Your task to perform on an android device: change the upload size in google photos Image 0: 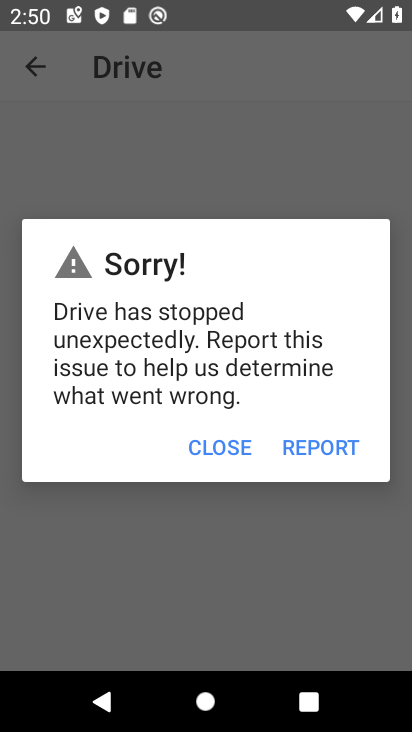
Step 0: press home button
Your task to perform on an android device: change the upload size in google photos Image 1: 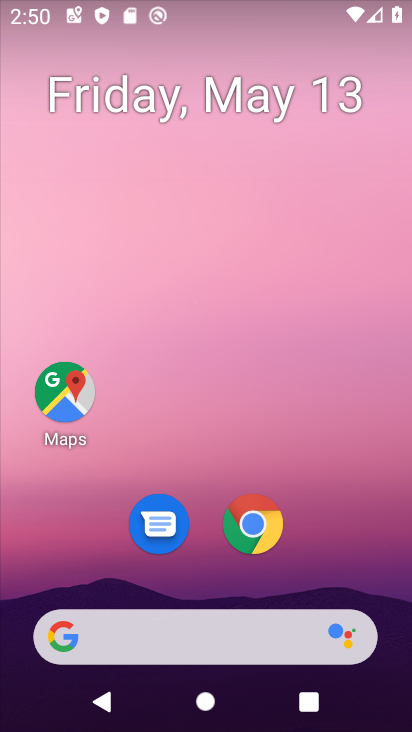
Step 1: drag from (271, 484) to (310, 65)
Your task to perform on an android device: change the upload size in google photos Image 2: 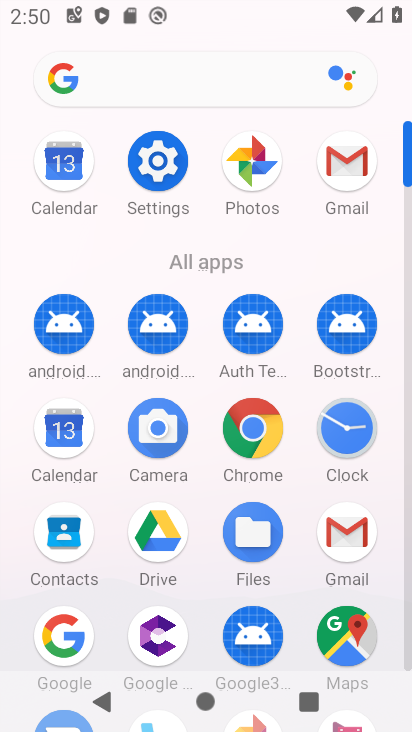
Step 2: click (249, 175)
Your task to perform on an android device: change the upload size in google photos Image 3: 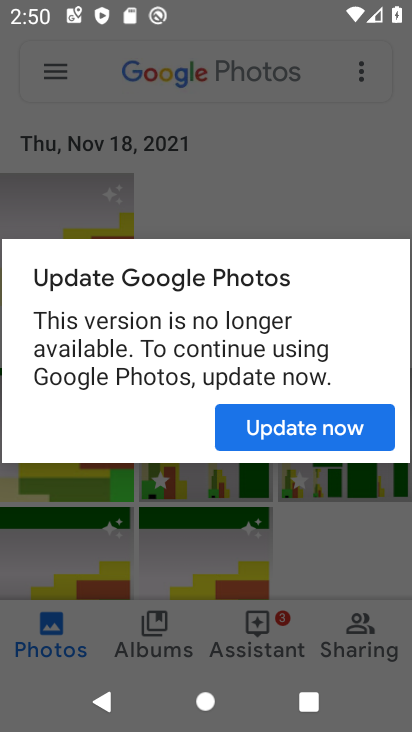
Step 3: click (316, 427)
Your task to perform on an android device: change the upload size in google photos Image 4: 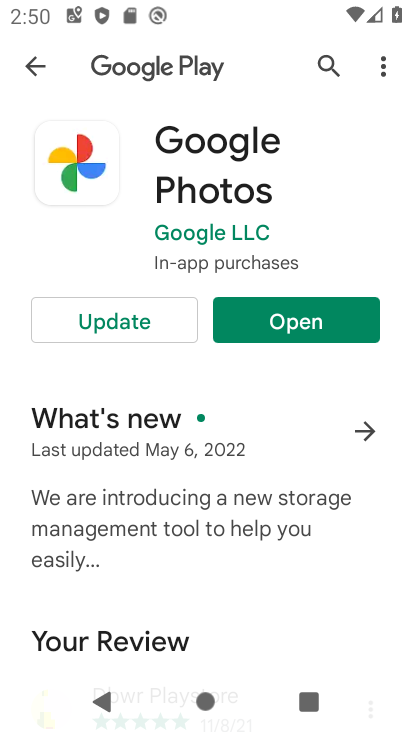
Step 4: click (326, 329)
Your task to perform on an android device: change the upload size in google photos Image 5: 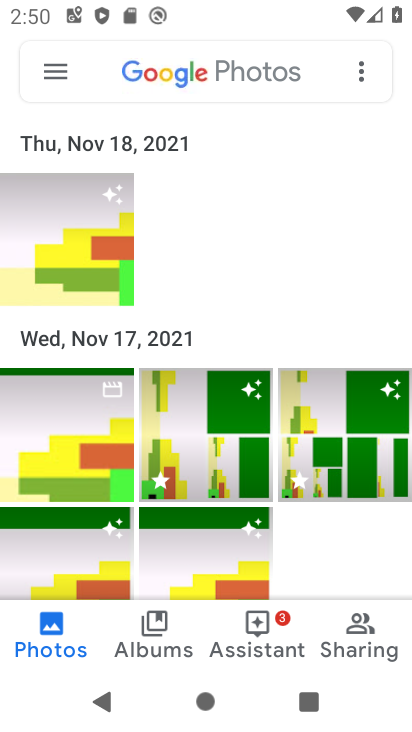
Step 5: click (57, 71)
Your task to perform on an android device: change the upload size in google photos Image 6: 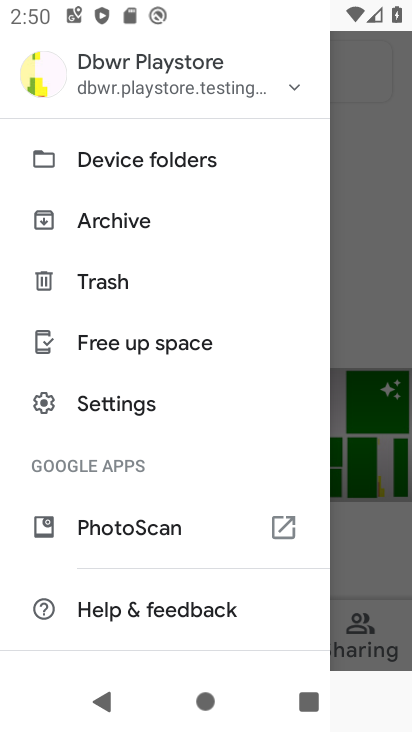
Step 6: click (122, 394)
Your task to perform on an android device: change the upload size in google photos Image 7: 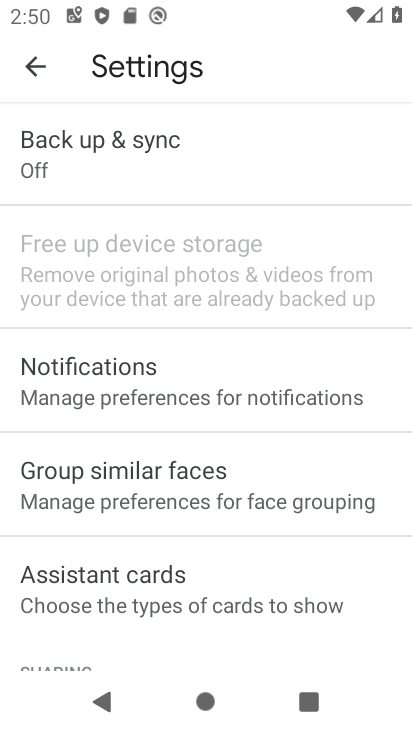
Step 7: click (164, 154)
Your task to perform on an android device: change the upload size in google photos Image 8: 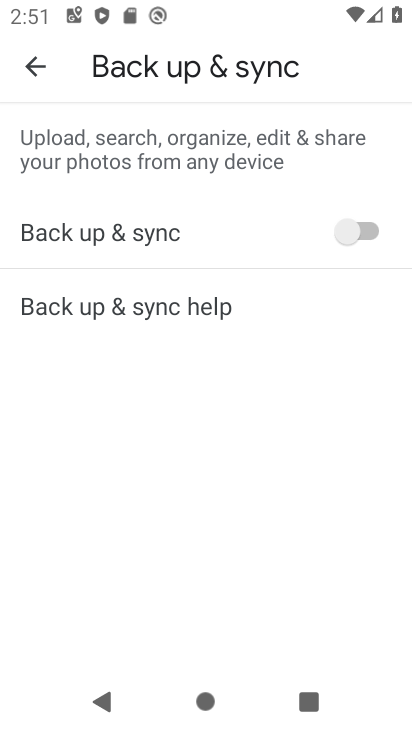
Step 8: click (357, 224)
Your task to perform on an android device: change the upload size in google photos Image 9: 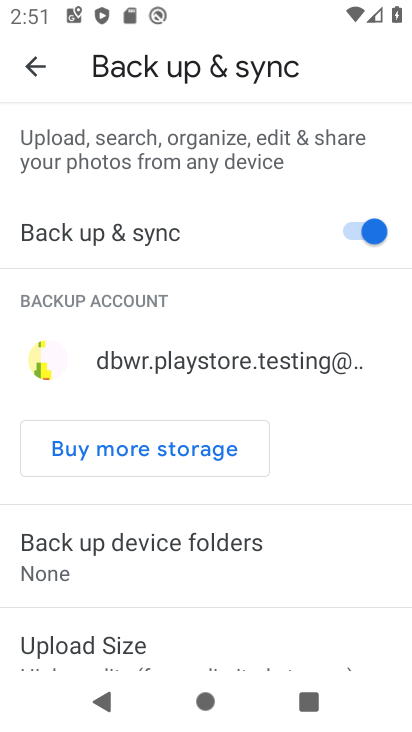
Step 9: task complete